Your task to perform on an android device: Open calendar and show me the second week of next month Image 0: 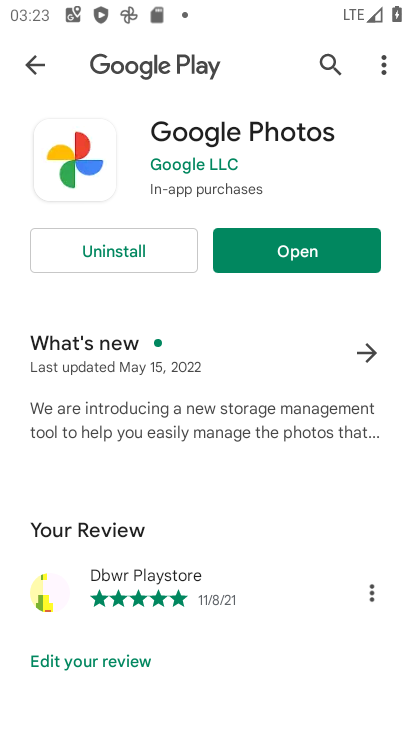
Step 0: press home button
Your task to perform on an android device: Open calendar and show me the second week of next month Image 1: 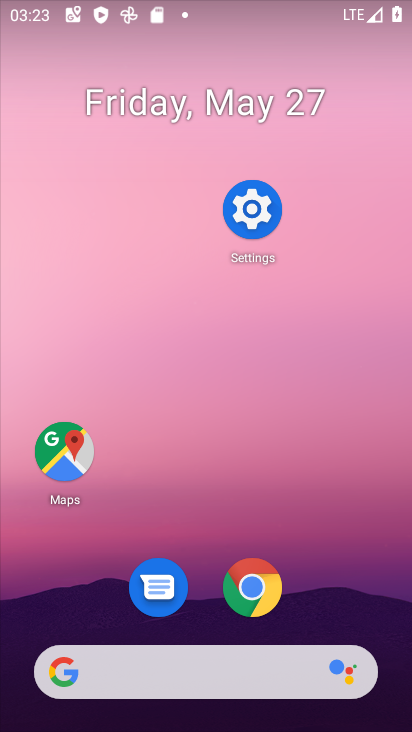
Step 1: click (355, 164)
Your task to perform on an android device: Open calendar and show me the second week of next month Image 2: 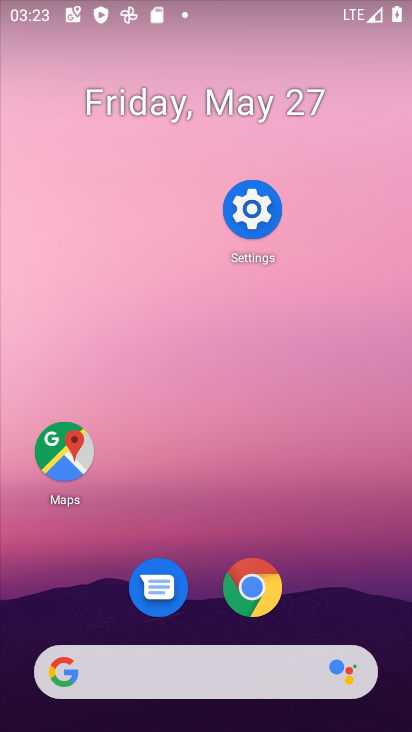
Step 2: drag from (333, 439) to (326, 0)
Your task to perform on an android device: Open calendar and show me the second week of next month Image 3: 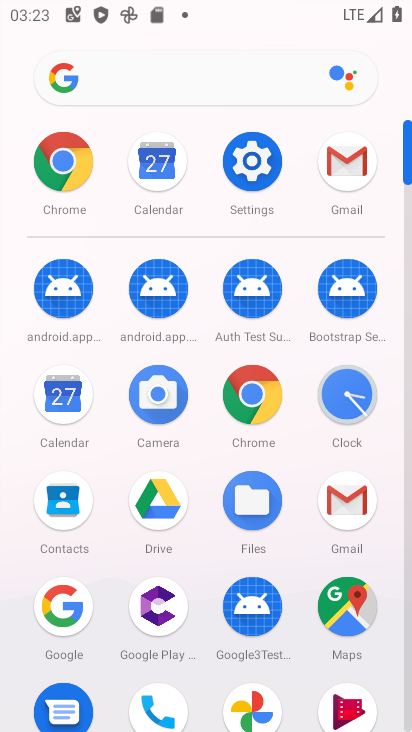
Step 3: click (68, 396)
Your task to perform on an android device: Open calendar and show me the second week of next month Image 4: 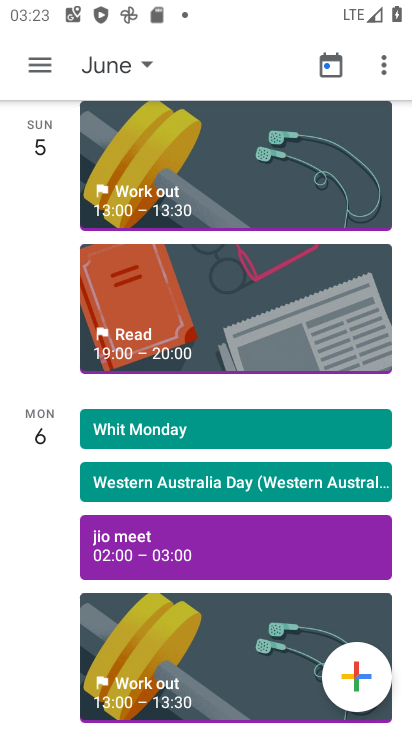
Step 4: task complete